Your task to perform on an android device: Search for razer deathadder on newegg, select the first entry, and add it to the cart. Image 0: 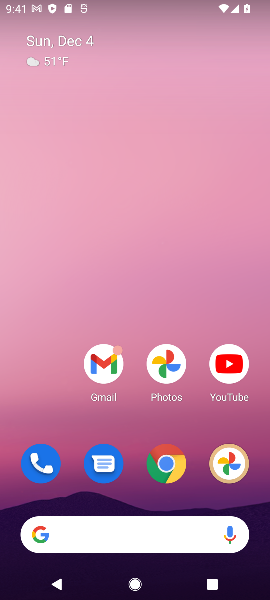
Step 0: click (90, 530)
Your task to perform on an android device: Search for razer deathadder on newegg, select the first entry, and add it to the cart. Image 1: 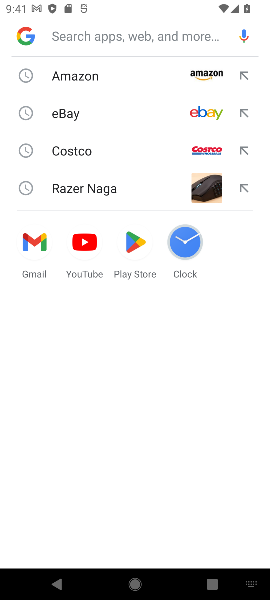
Step 1: type "newegg"
Your task to perform on an android device: Search for razer deathadder on newegg, select the first entry, and add it to the cart. Image 2: 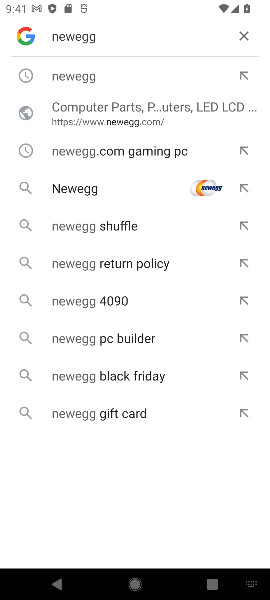
Step 2: click (161, 129)
Your task to perform on an android device: Search for razer deathadder on newegg, select the first entry, and add it to the cart. Image 3: 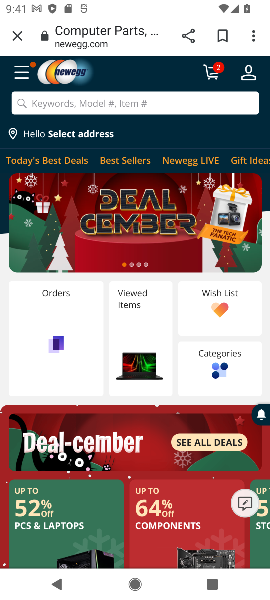
Step 3: task complete